Your task to perform on an android device: change the clock style Image 0: 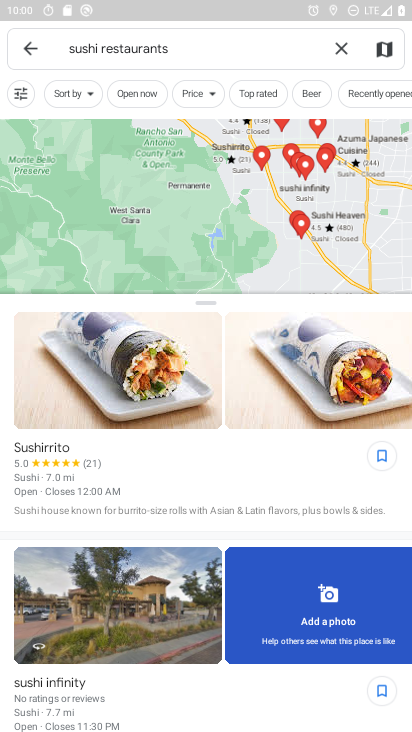
Step 0: press home button
Your task to perform on an android device: change the clock style Image 1: 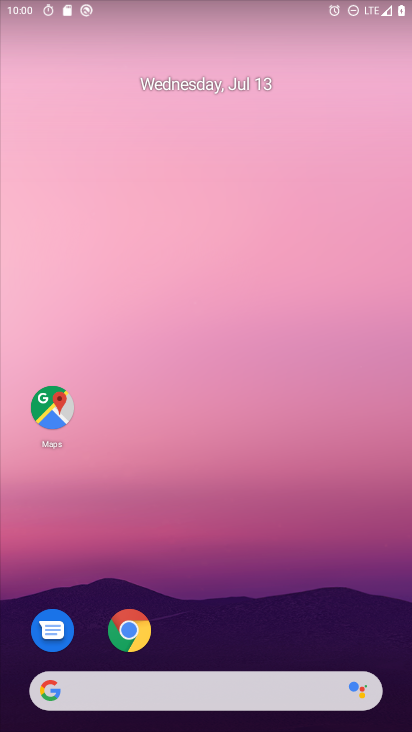
Step 1: drag from (385, 654) to (272, 80)
Your task to perform on an android device: change the clock style Image 2: 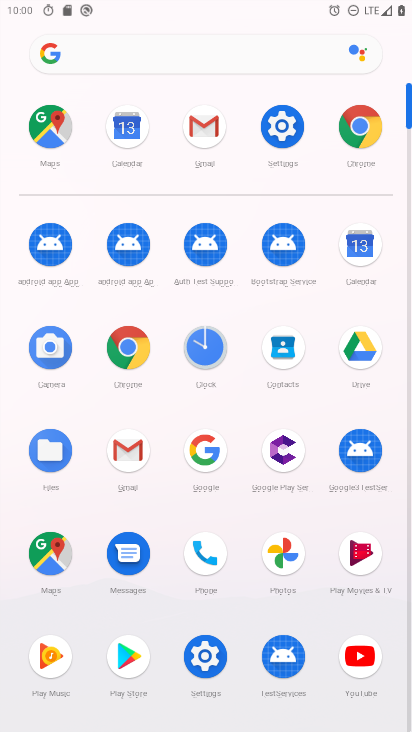
Step 2: click (203, 357)
Your task to perform on an android device: change the clock style Image 3: 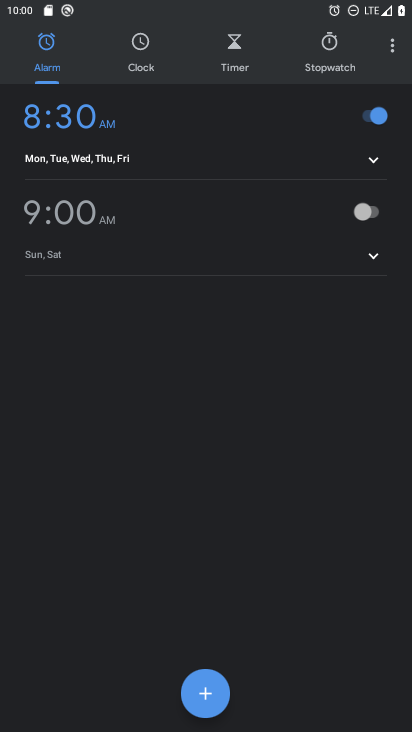
Step 3: click (387, 51)
Your task to perform on an android device: change the clock style Image 4: 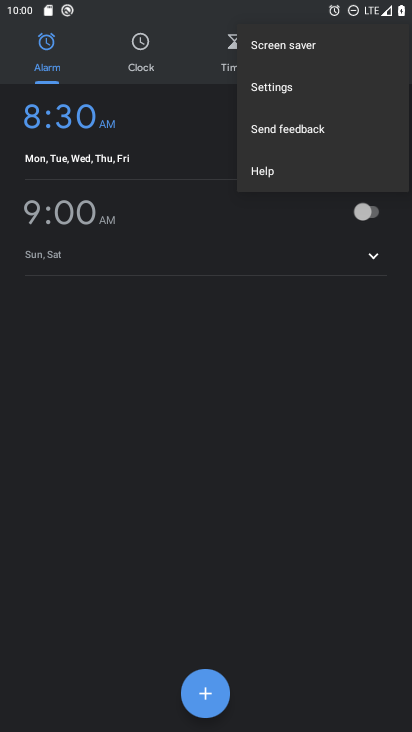
Step 4: click (280, 93)
Your task to perform on an android device: change the clock style Image 5: 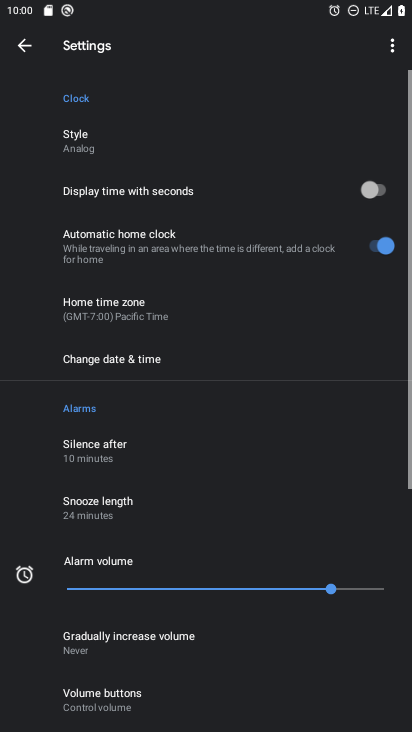
Step 5: click (110, 132)
Your task to perform on an android device: change the clock style Image 6: 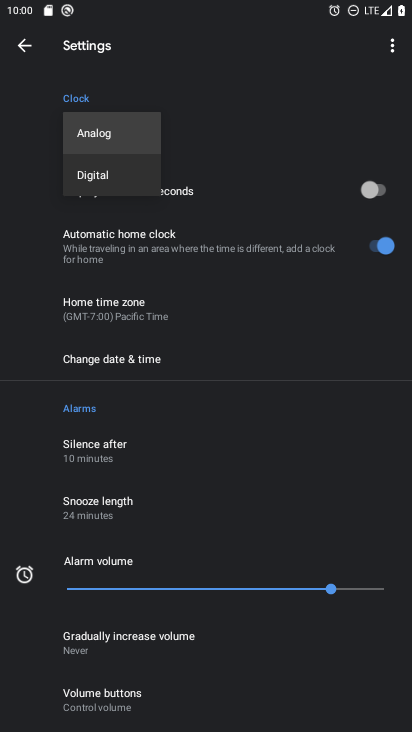
Step 6: click (103, 172)
Your task to perform on an android device: change the clock style Image 7: 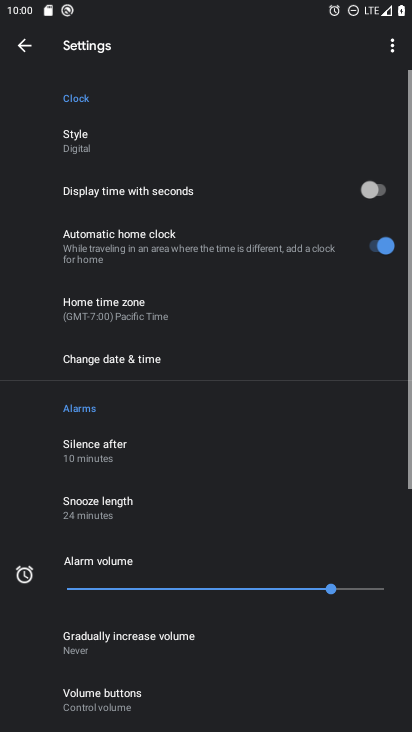
Step 7: task complete